Your task to perform on an android device: Search for Italian restaurants on Maps Image 0: 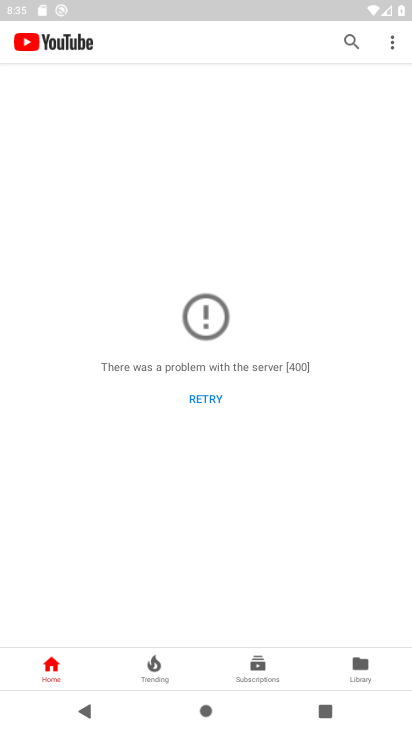
Step 0: press home button
Your task to perform on an android device: Search for Italian restaurants on Maps Image 1: 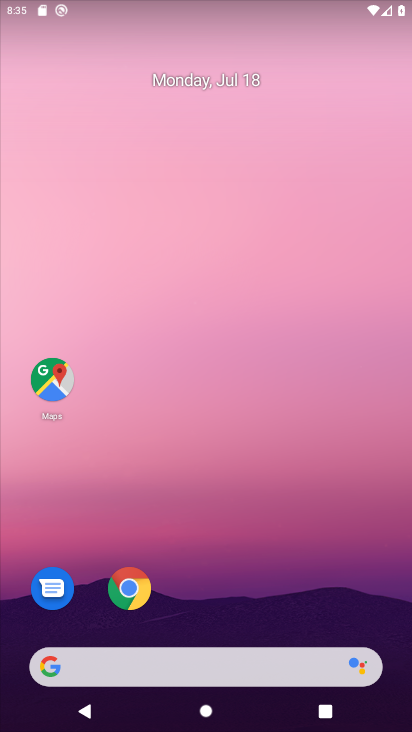
Step 1: drag from (116, 644) to (224, 61)
Your task to perform on an android device: Search for Italian restaurants on Maps Image 2: 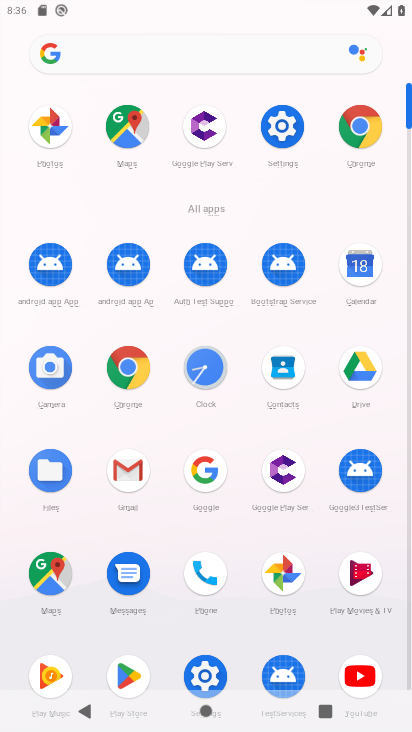
Step 2: click (126, 109)
Your task to perform on an android device: Search for Italian restaurants on Maps Image 3: 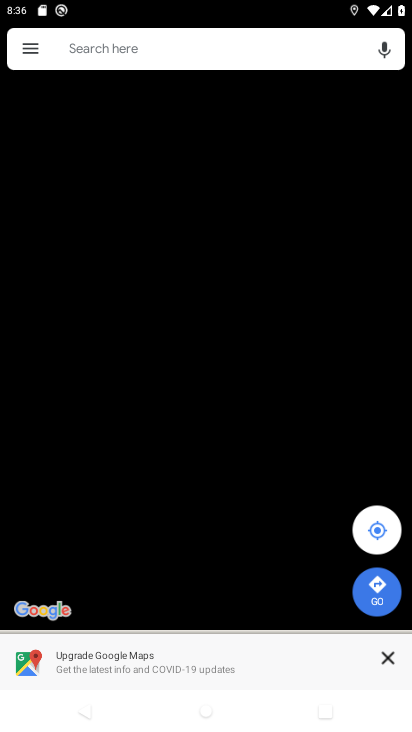
Step 3: click (150, 31)
Your task to perform on an android device: Search for Italian restaurants on Maps Image 4: 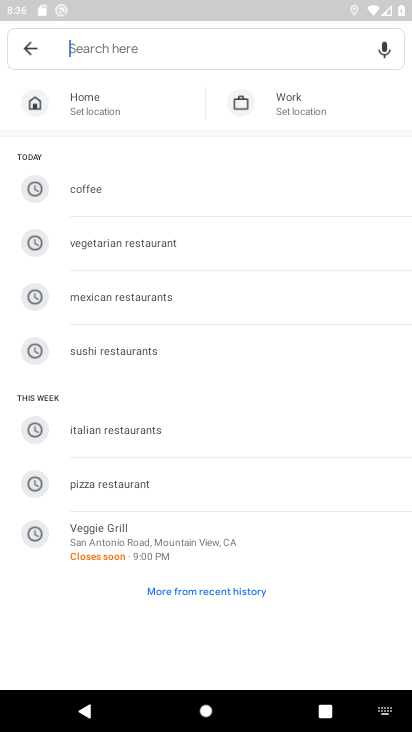
Step 4: type "Italian restaurants"
Your task to perform on an android device: Search for Italian restaurants on Maps Image 5: 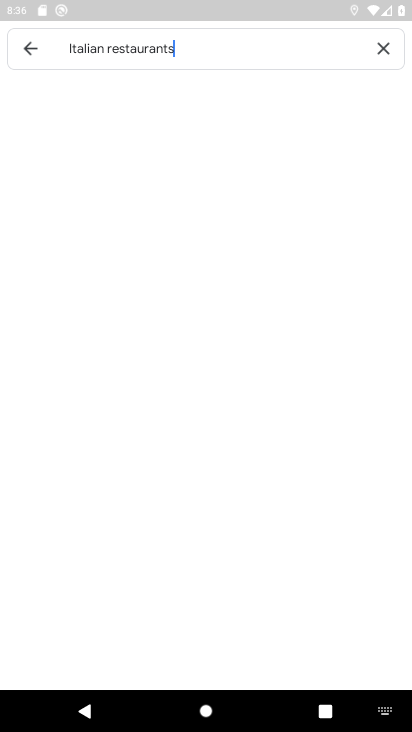
Step 5: type ""
Your task to perform on an android device: Search for Italian restaurants on Maps Image 6: 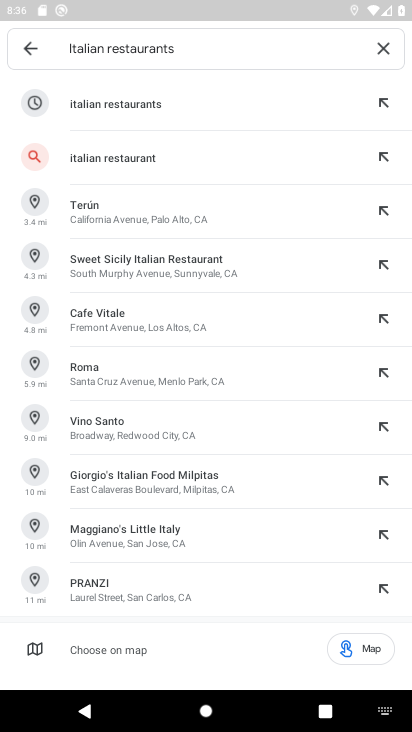
Step 6: click (212, 103)
Your task to perform on an android device: Search for Italian restaurants on Maps Image 7: 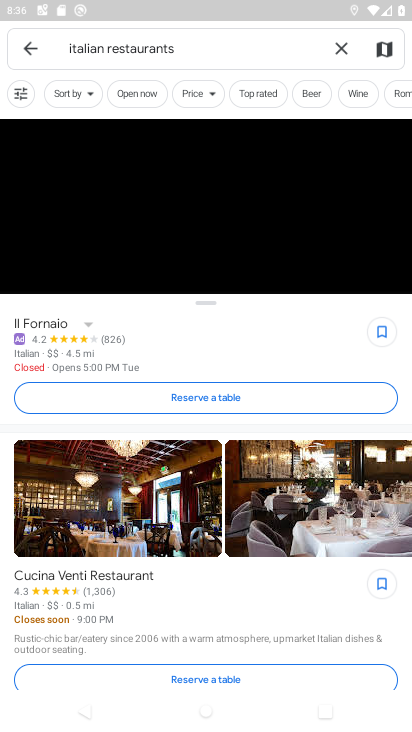
Step 7: task complete